Your task to perform on an android device: stop showing notifications on the lock screen Image 0: 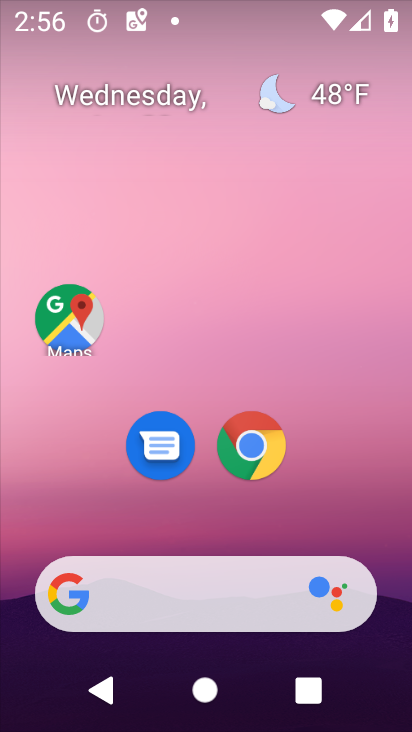
Step 0: drag from (358, 482) to (385, 17)
Your task to perform on an android device: stop showing notifications on the lock screen Image 1: 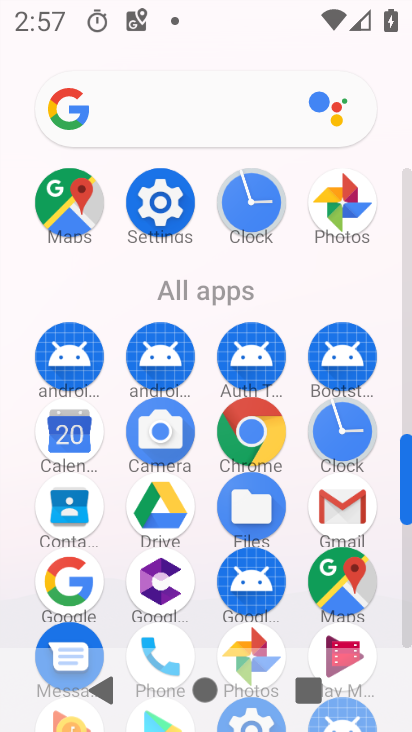
Step 1: click (165, 205)
Your task to perform on an android device: stop showing notifications on the lock screen Image 2: 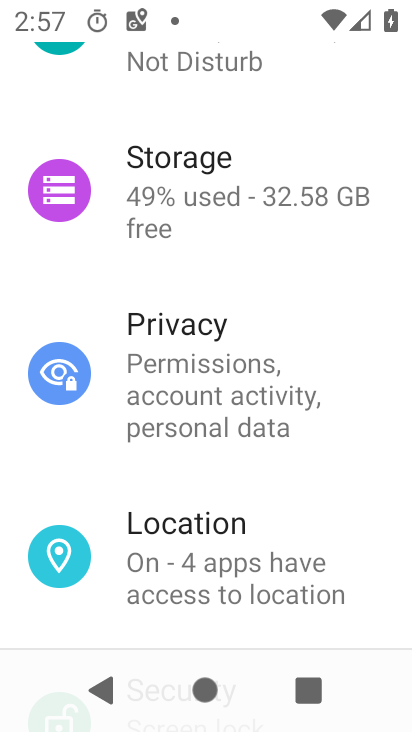
Step 2: drag from (359, 317) to (343, 670)
Your task to perform on an android device: stop showing notifications on the lock screen Image 3: 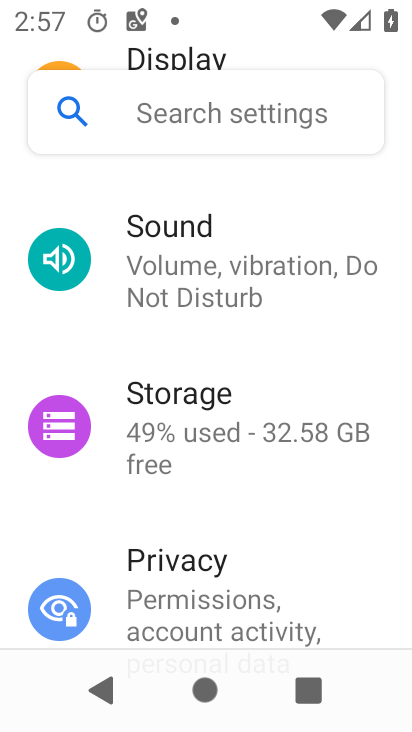
Step 3: drag from (342, 234) to (334, 642)
Your task to perform on an android device: stop showing notifications on the lock screen Image 4: 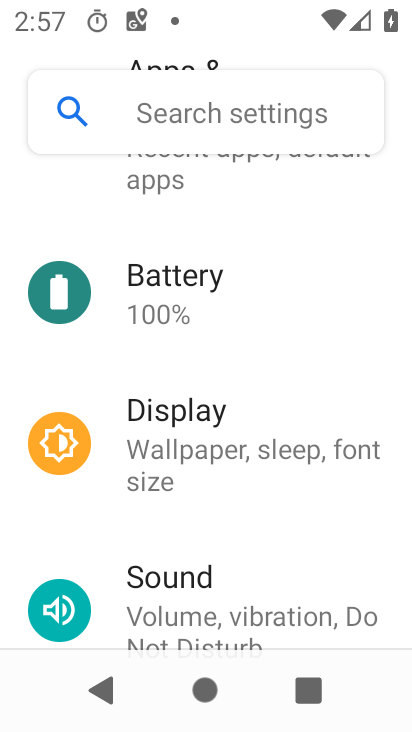
Step 4: drag from (313, 263) to (317, 561)
Your task to perform on an android device: stop showing notifications on the lock screen Image 5: 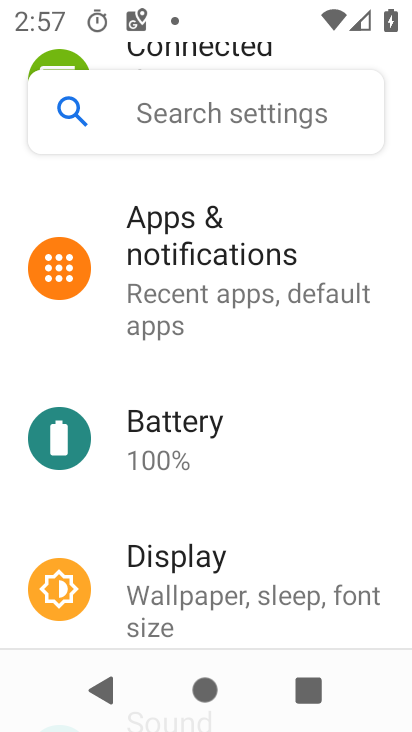
Step 5: click (177, 266)
Your task to perform on an android device: stop showing notifications on the lock screen Image 6: 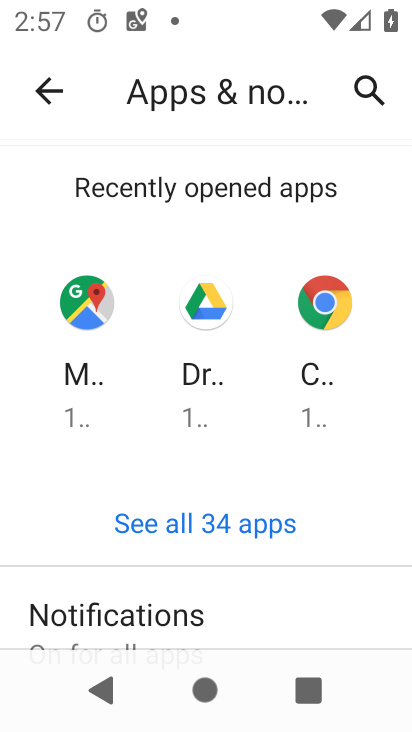
Step 6: drag from (232, 577) to (238, 120)
Your task to perform on an android device: stop showing notifications on the lock screen Image 7: 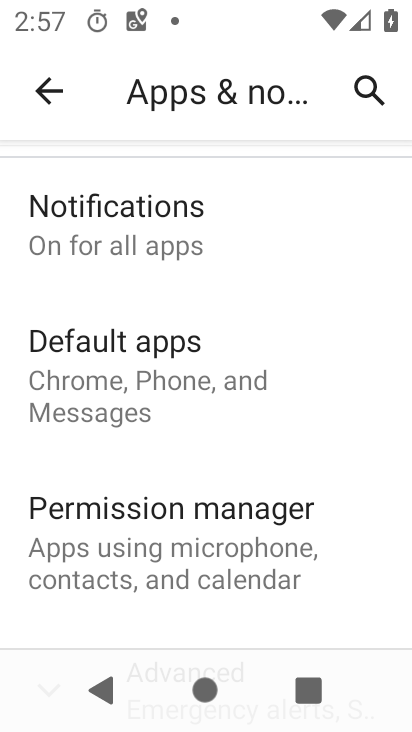
Step 7: click (81, 242)
Your task to perform on an android device: stop showing notifications on the lock screen Image 8: 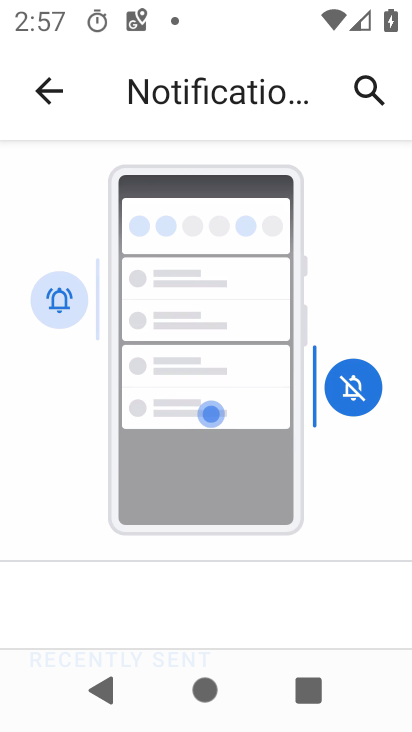
Step 8: drag from (253, 454) to (248, 71)
Your task to perform on an android device: stop showing notifications on the lock screen Image 9: 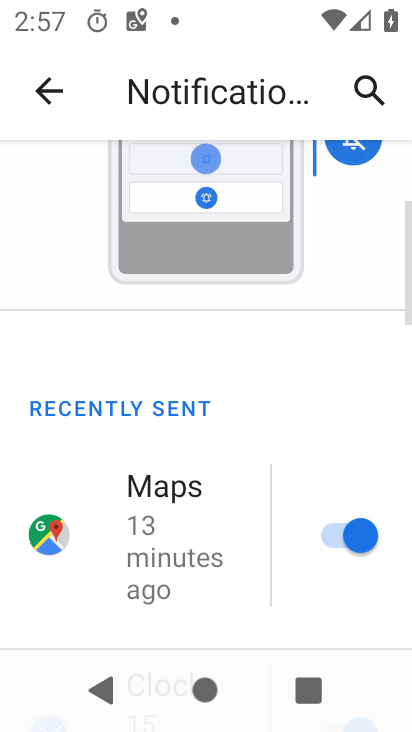
Step 9: drag from (204, 516) to (202, 111)
Your task to perform on an android device: stop showing notifications on the lock screen Image 10: 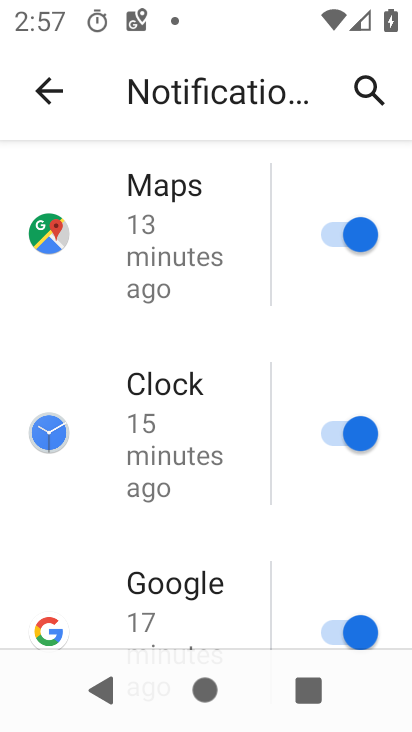
Step 10: drag from (177, 556) to (186, 176)
Your task to perform on an android device: stop showing notifications on the lock screen Image 11: 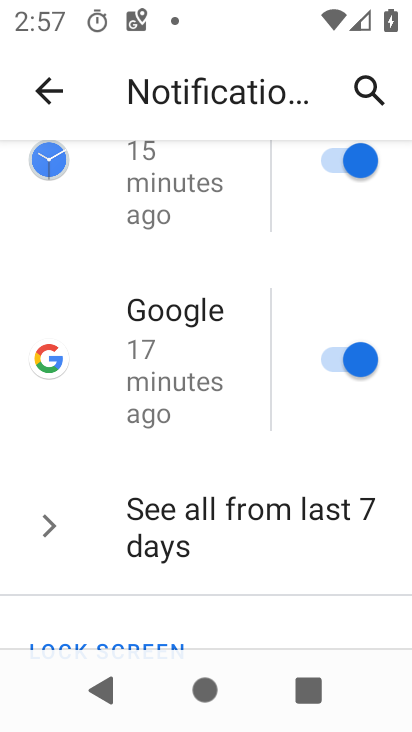
Step 11: drag from (207, 521) to (176, 129)
Your task to perform on an android device: stop showing notifications on the lock screen Image 12: 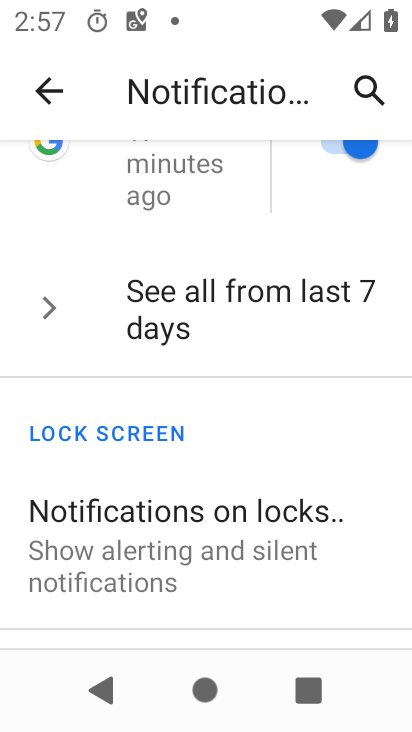
Step 12: click (115, 530)
Your task to perform on an android device: stop showing notifications on the lock screen Image 13: 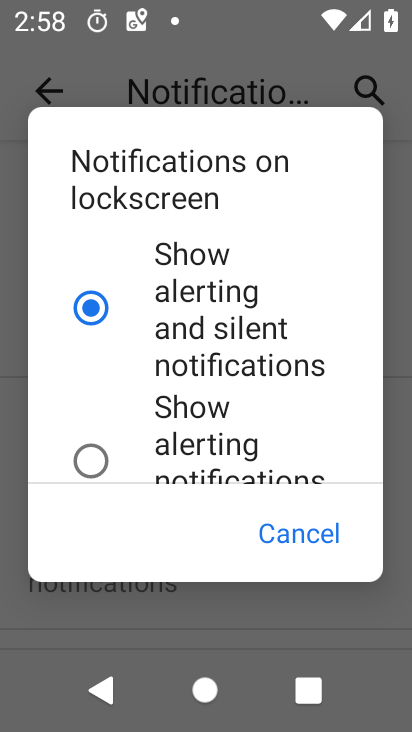
Step 13: drag from (134, 429) to (144, 179)
Your task to perform on an android device: stop showing notifications on the lock screen Image 14: 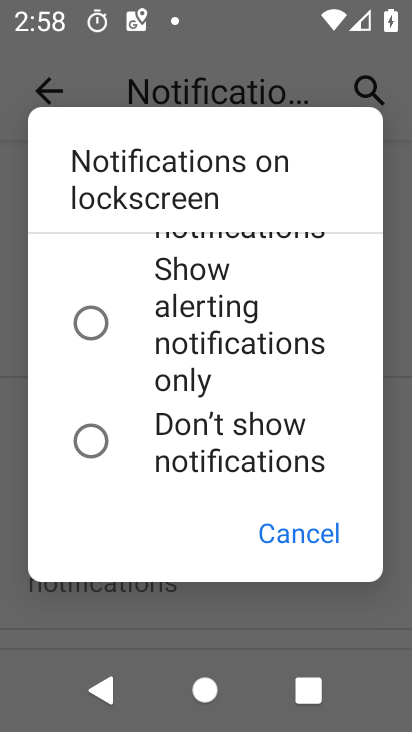
Step 14: click (85, 449)
Your task to perform on an android device: stop showing notifications on the lock screen Image 15: 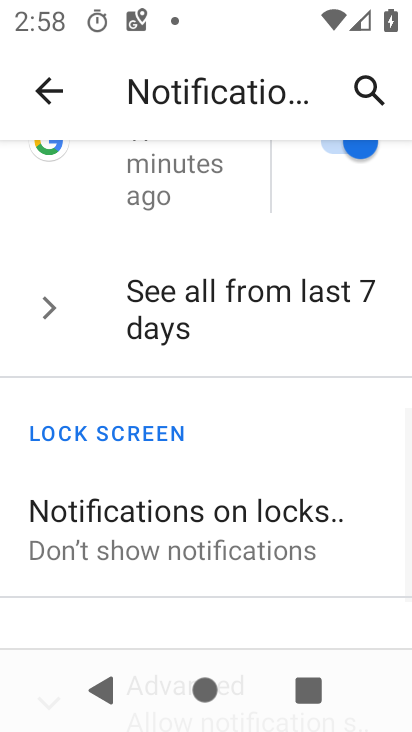
Step 15: task complete